Your task to perform on an android device: Do I have any events tomorrow? Image 0: 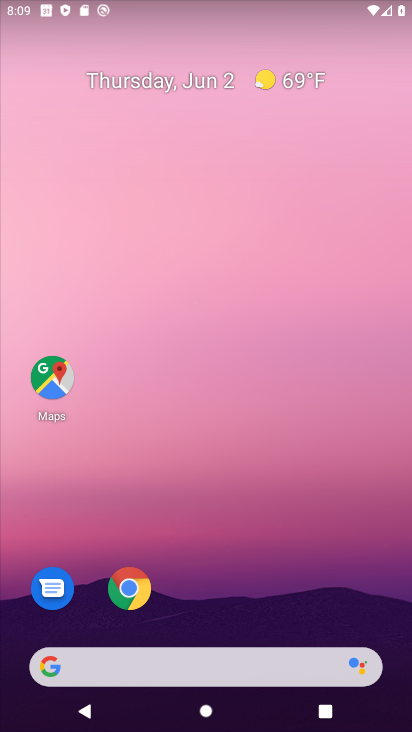
Step 0: drag from (250, 730) to (255, 46)
Your task to perform on an android device: Do I have any events tomorrow? Image 1: 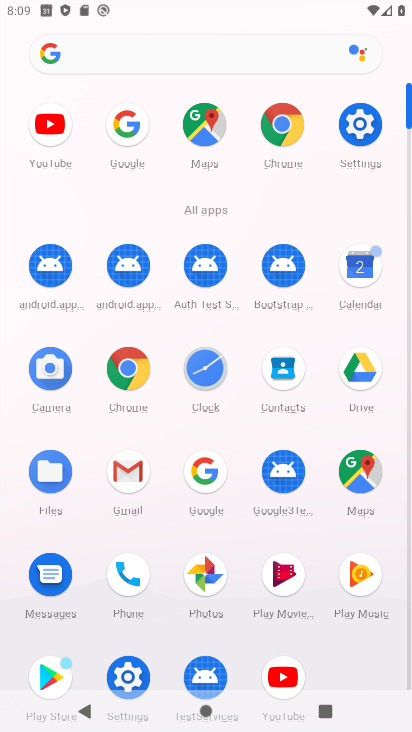
Step 1: click (359, 263)
Your task to perform on an android device: Do I have any events tomorrow? Image 2: 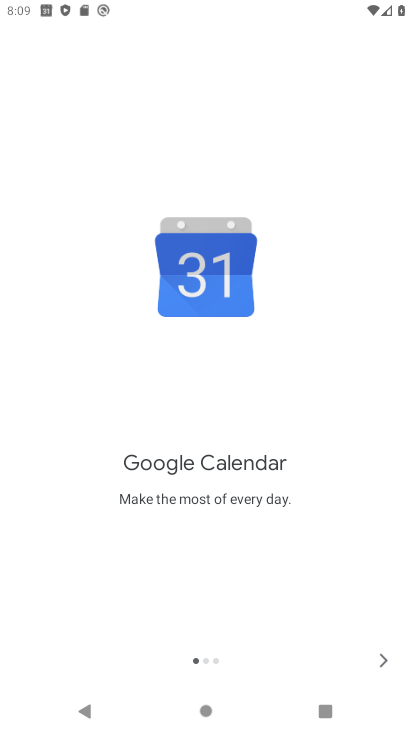
Step 2: click (380, 653)
Your task to perform on an android device: Do I have any events tomorrow? Image 3: 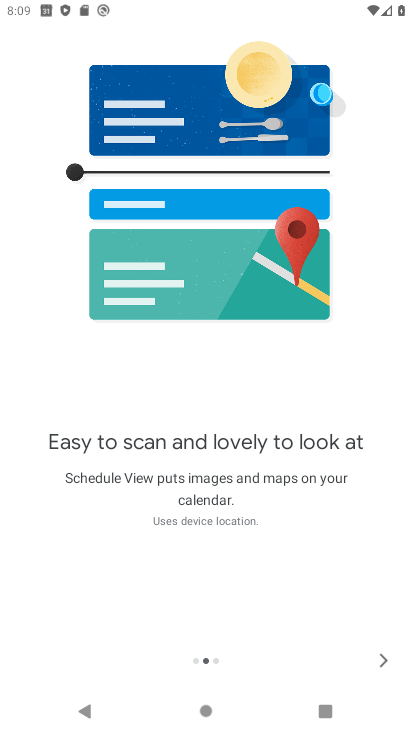
Step 3: click (384, 662)
Your task to perform on an android device: Do I have any events tomorrow? Image 4: 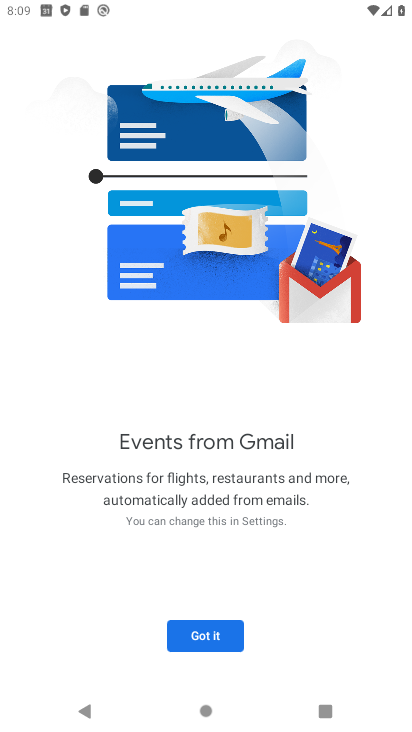
Step 4: click (211, 635)
Your task to perform on an android device: Do I have any events tomorrow? Image 5: 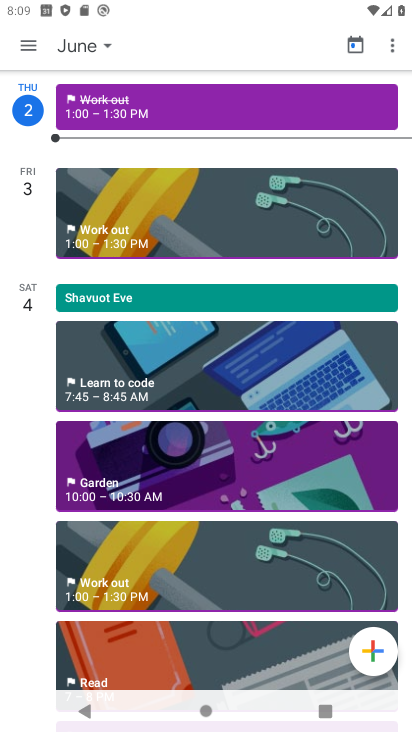
Step 5: click (27, 47)
Your task to perform on an android device: Do I have any events tomorrow? Image 6: 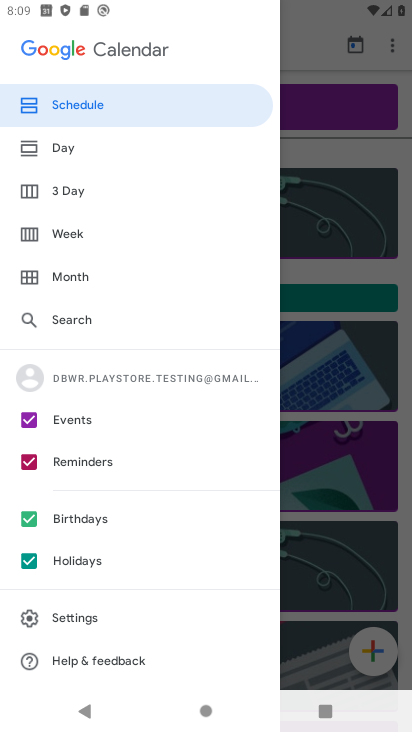
Step 6: click (28, 561)
Your task to perform on an android device: Do I have any events tomorrow? Image 7: 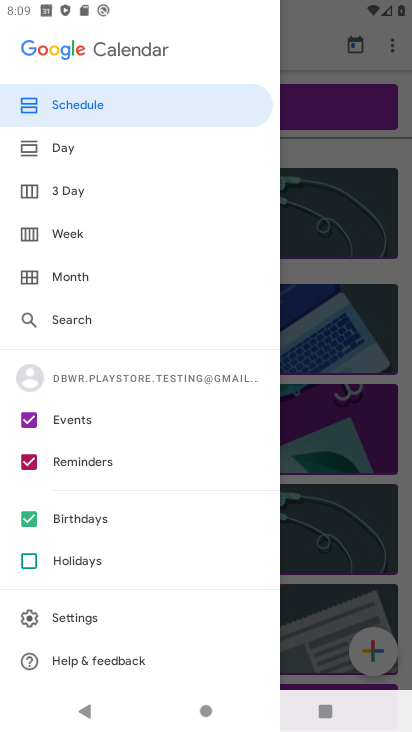
Step 7: click (25, 518)
Your task to perform on an android device: Do I have any events tomorrow? Image 8: 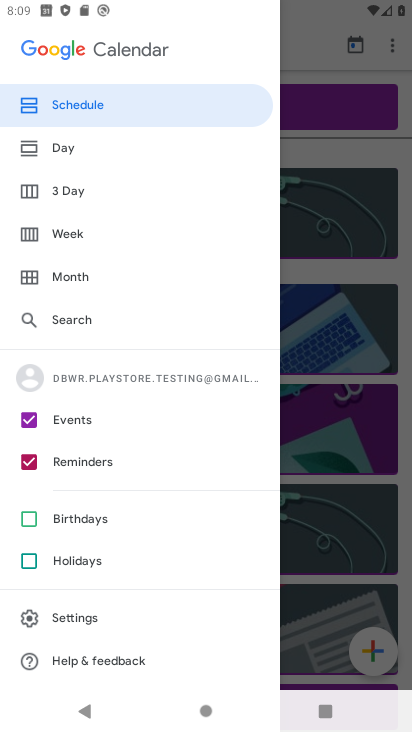
Step 8: click (27, 462)
Your task to perform on an android device: Do I have any events tomorrow? Image 9: 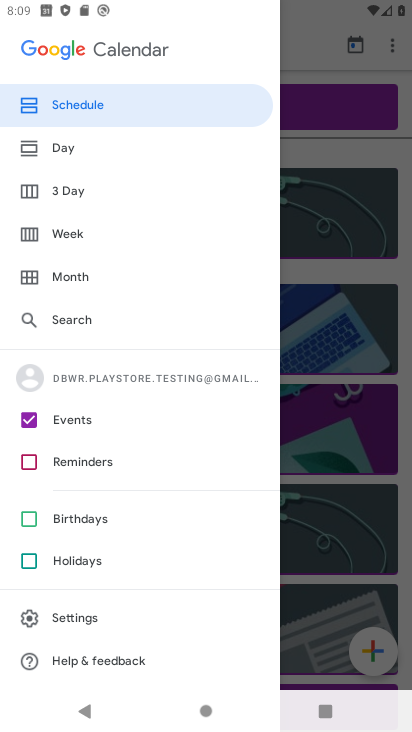
Step 9: click (91, 107)
Your task to perform on an android device: Do I have any events tomorrow? Image 10: 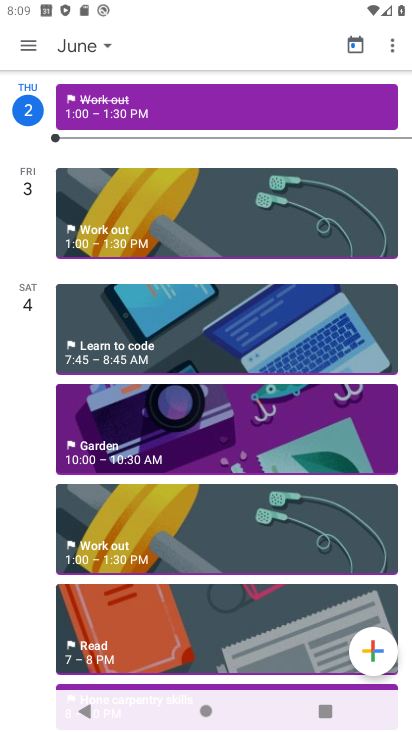
Step 10: click (105, 46)
Your task to perform on an android device: Do I have any events tomorrow? Image 11: 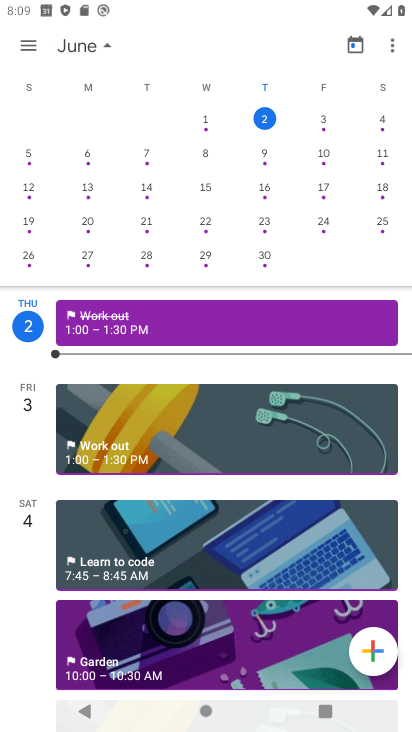
Step 11: click (328, 115)
Your task to perform on an android device: Do I have any events tomorrow? Image 12: 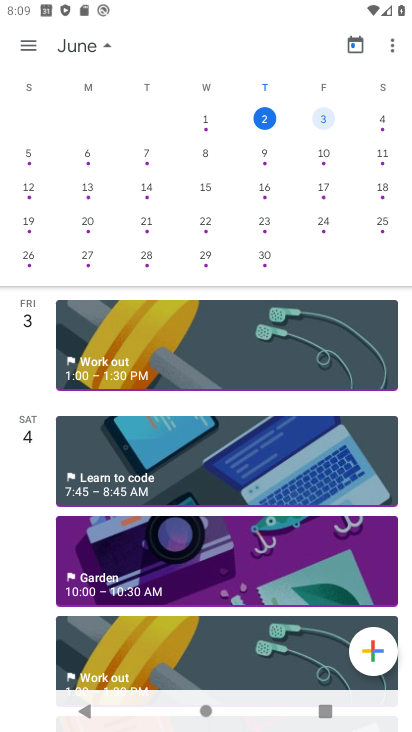
Step 12: click (325, 115)
Your task to perform on an android device: Do I have any events tomorrow? Image 13: 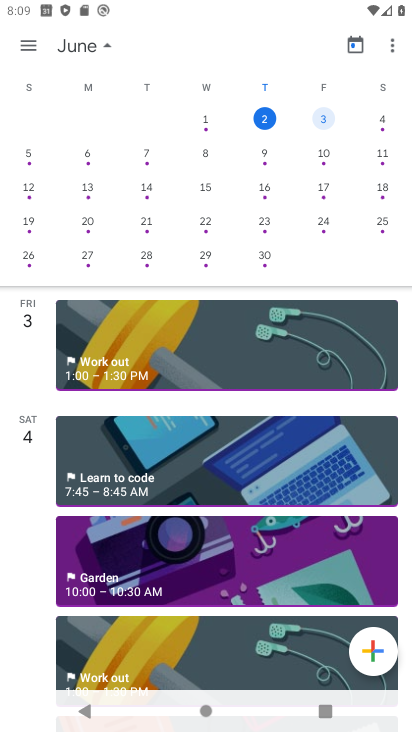
Step 13: click (107, 40)
Your task to perform on an android device: Do I have any events tomorrow? Image 14: 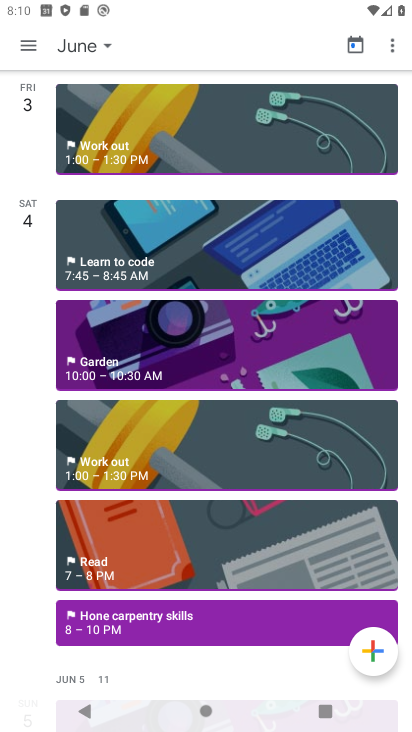
Step 14: task complete